Your task to perform on an android device: Open wifi settings Image 0: 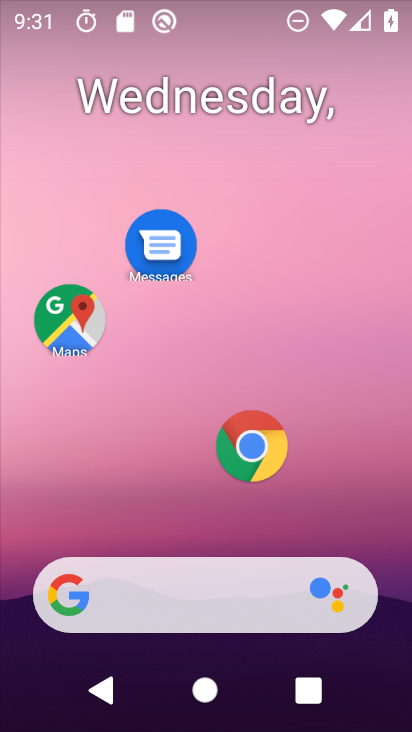
Step 0: drag from (206, 528) to (243, 46)
Your task to perform on an android device: Open wifi settings Image 1: 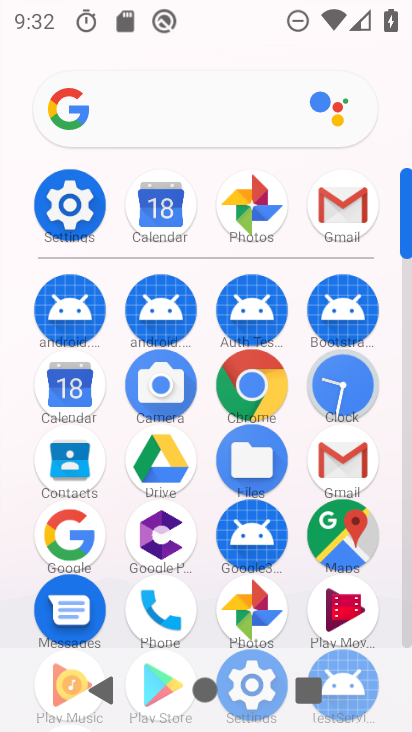
Step 1: click (66, 198)
Your task to perform on an android device: Open wifi settings Image 2: 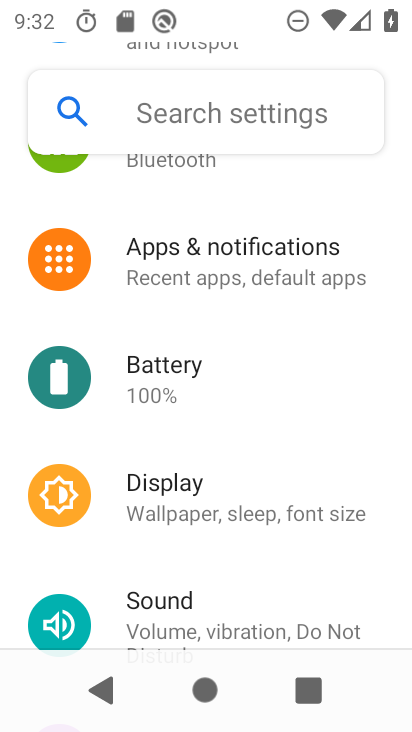
Step 2: drag from (155, 205) to (187, 662)
Your task to perform on an android device: Open wifi settings Image 3: 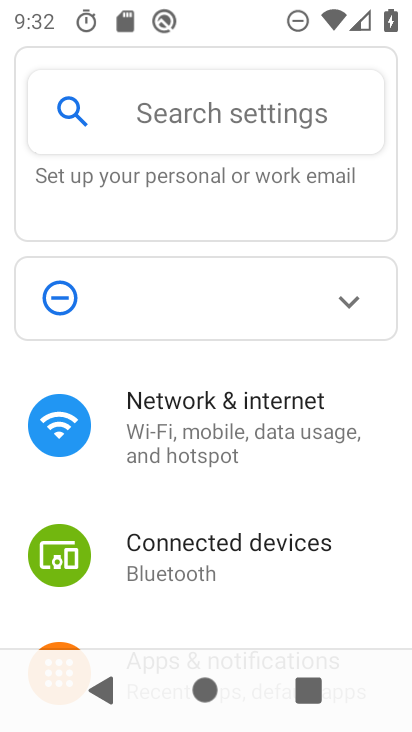
Step 3: click (144, 437)
Your task to perform on an android device: Open wifi settings Image 4: 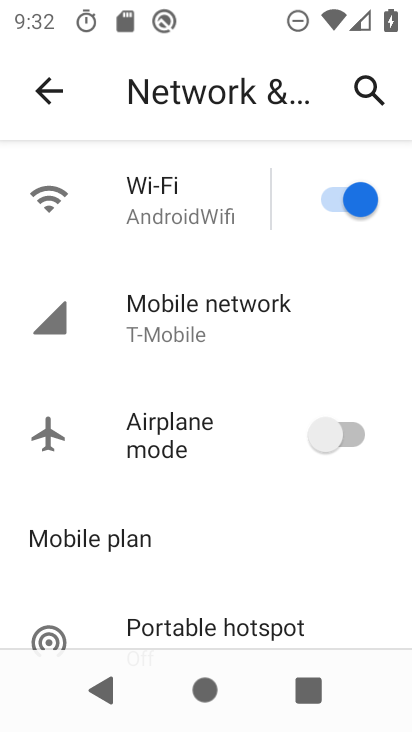
Step 4: drag from (158, 581) to (172, 168)
Your task to perform on an android device: Open wifi settings Image 5: 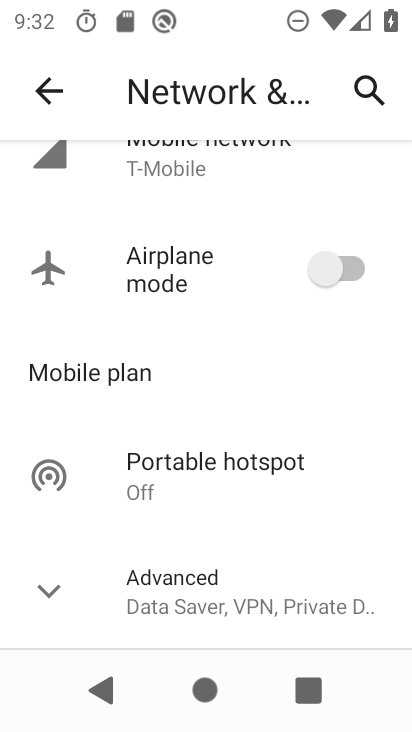
Step 5: drag from (145, 247) to (172, 631)
Your task to perform on an android device: Open wifi settings Image 6: 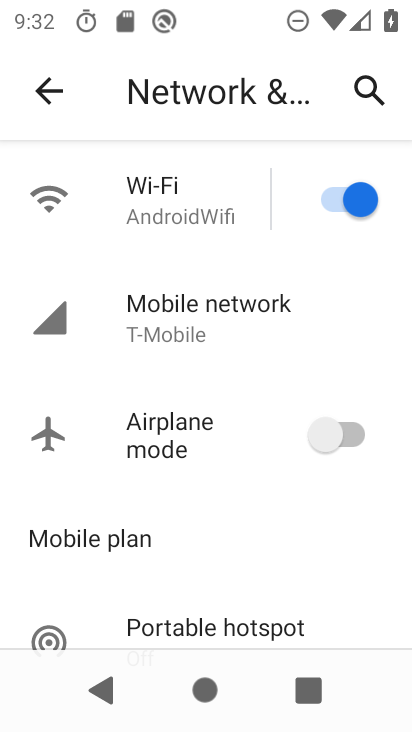
Step 6: click (146, 208)
Your task to perform on an android device: Open wifi settings Image 7: 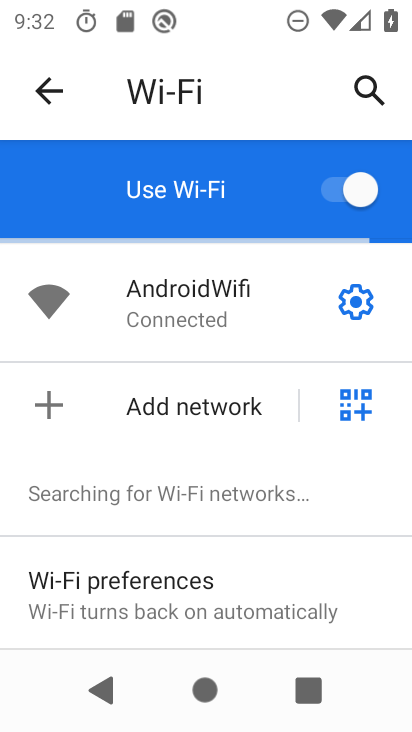
Step 7: task complete